Your task to perform on an android device: check the backup settings in the google photos Image 0: 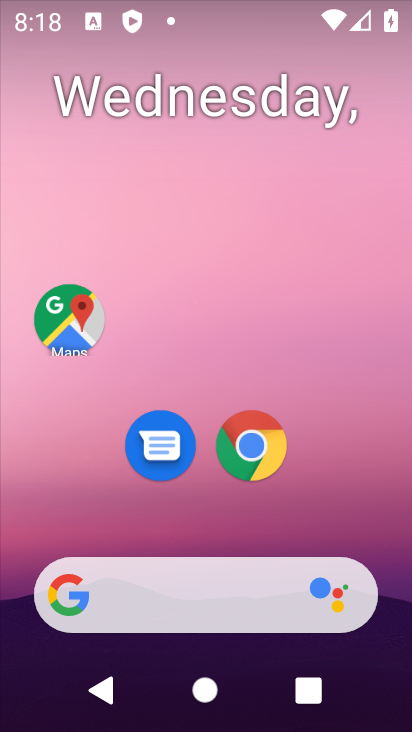
Step 0: drag from (348, 538) to (362, 65)
Your task to perform on an android device: check the backup settings in the google photos Image 1: 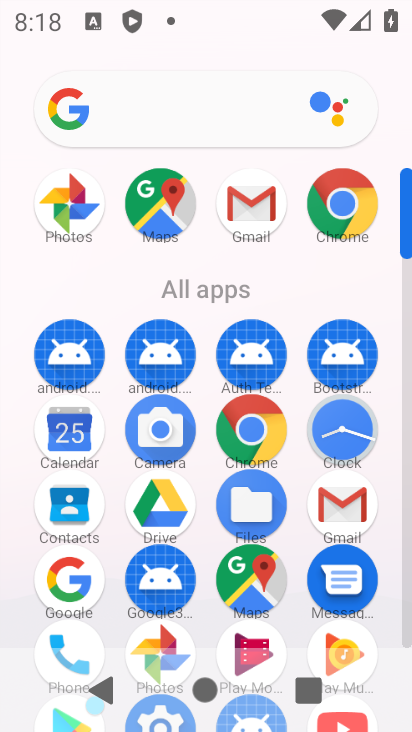
Step 1: click (75, 200)
Your task to perform on an android device: check the backup settings in the google photos Image 2: 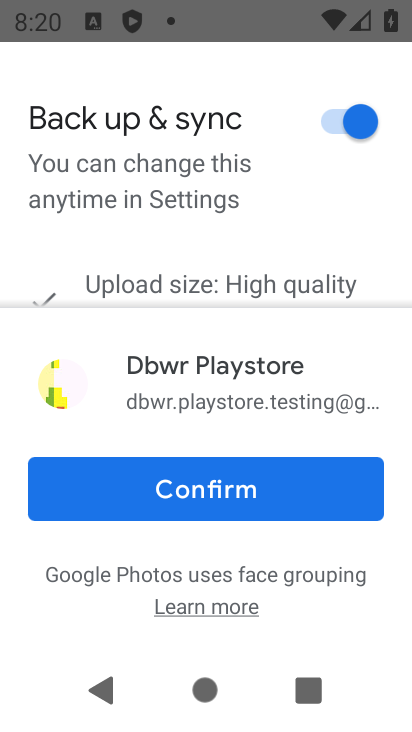
Step 2: click (273, 518)
Your task to perform on an android device: check the backup settings in the google photos Image 3: 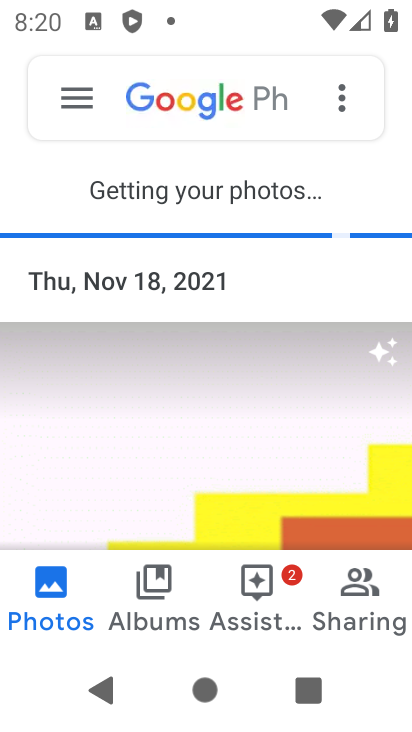
Step 3: click (77, 102)
Your task to perform on an android device: check the backup settings in the google photos Image 4: 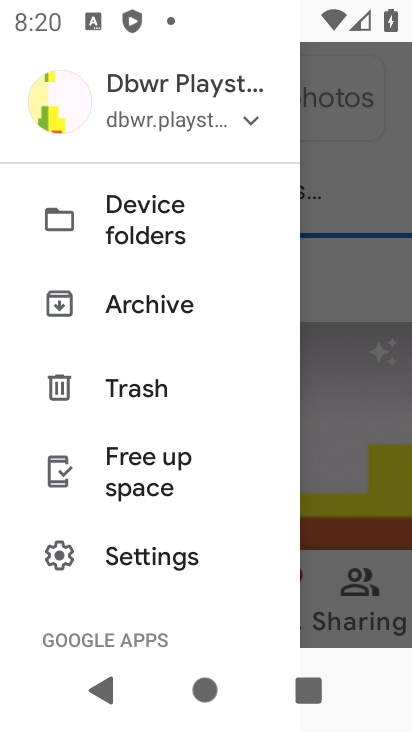
Step 4: click (140, 564)
Your task to perform on an android device: check the backup settings in the google photos Image 5: 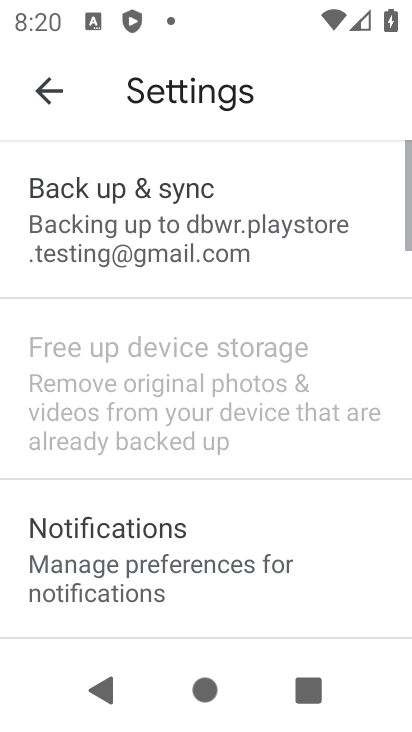
Step 5: click (122, 266)
Your task to perform on an android device: check the backup settings in the google photos Image 6: 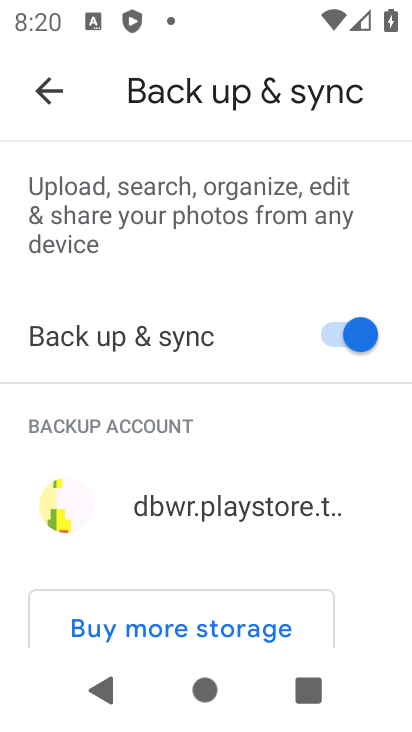
Step 6: task complete